Your task to perform on an android device: turn pop-ups off in chrome Image 0: 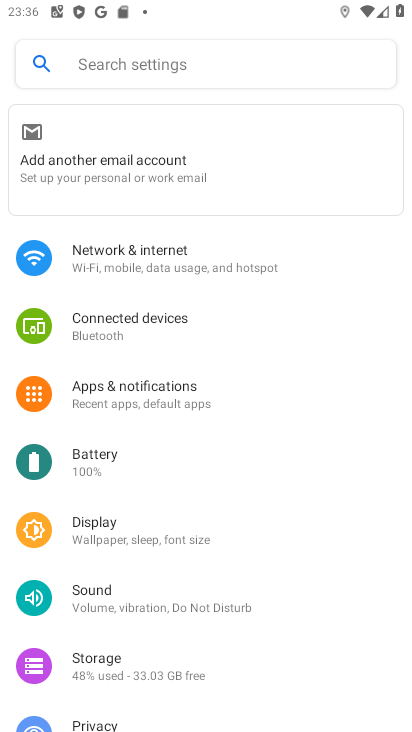
Step 0: press home button
Your task to perform on an android device: turn pop-ups off in chrome Image 1: 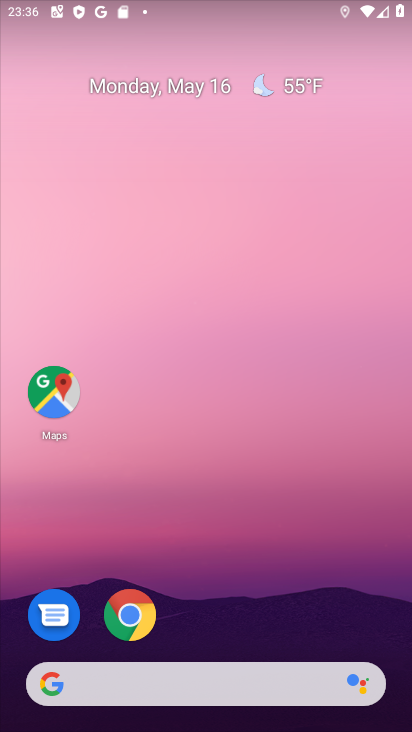
Step 1: click (150, 603)
Your task to perform on an android device: turn pop-ups off in chrome Image 2: 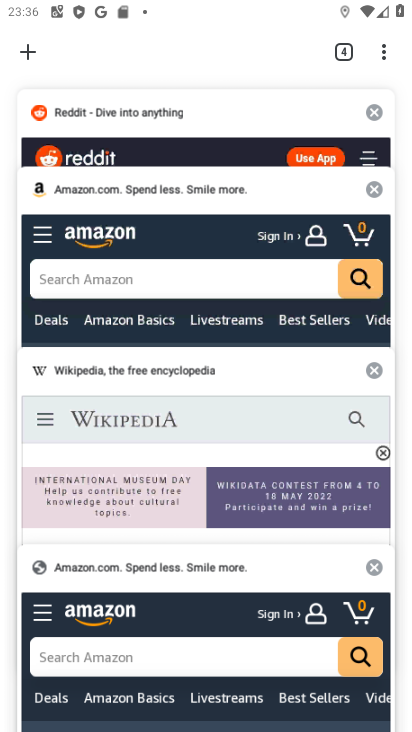
Step 2: click (377, 622)
Your task to perform on an android device: turn pop-ups off in chrome Image 3: 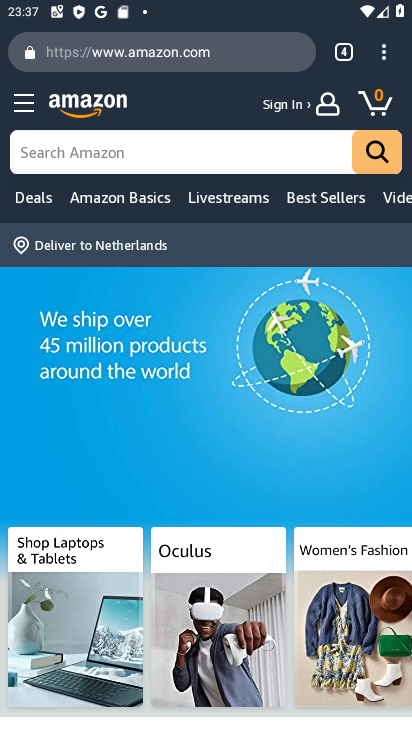
Step 3: click (388, 58)
Your task to perform on an android device: turn pop-ups off in chrome Image 4: 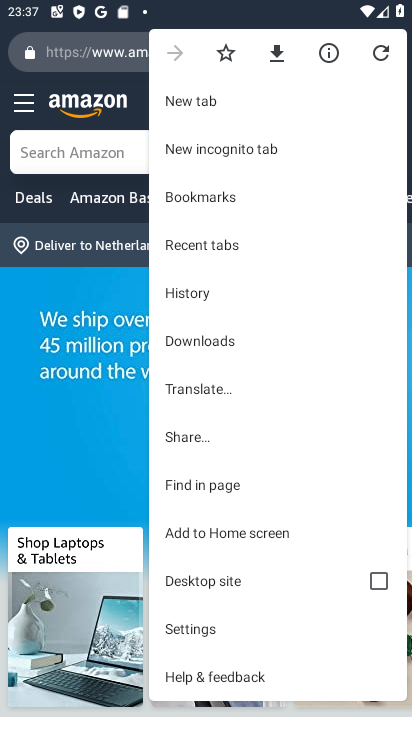
Step 4: click (203, 623)
Your task to perform on an android device: turn pop-ups off in chrome Image 5: 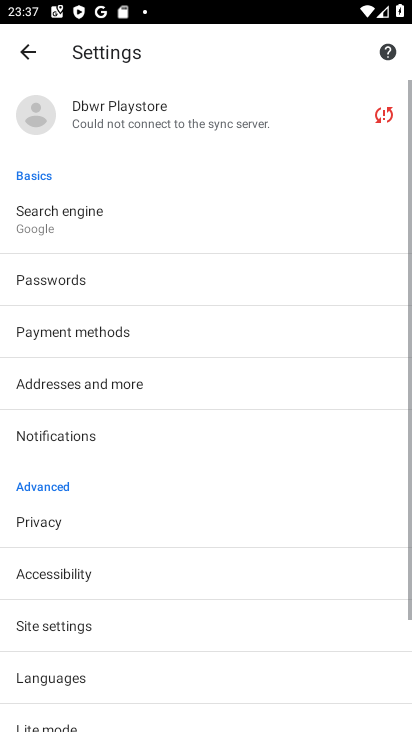
Step 5: drag from (204, 618) to (176, 17)
Your task to perform on an android device: turn pop-ups off in chrome Image 6: 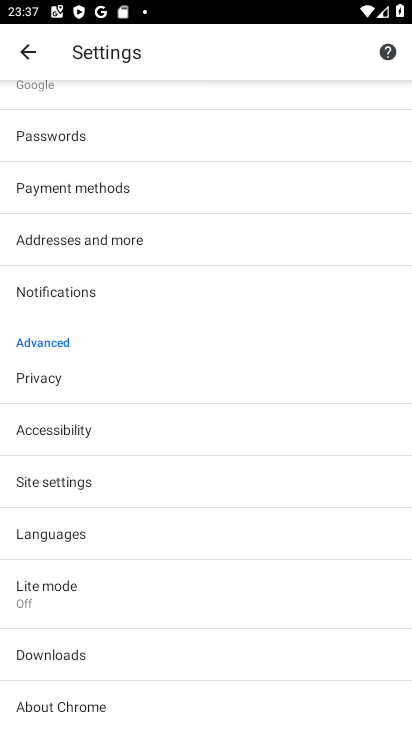
Step 6: click (58, 473)
Your task to perform on an android device: turn pop-ups off in chrome Image 7: 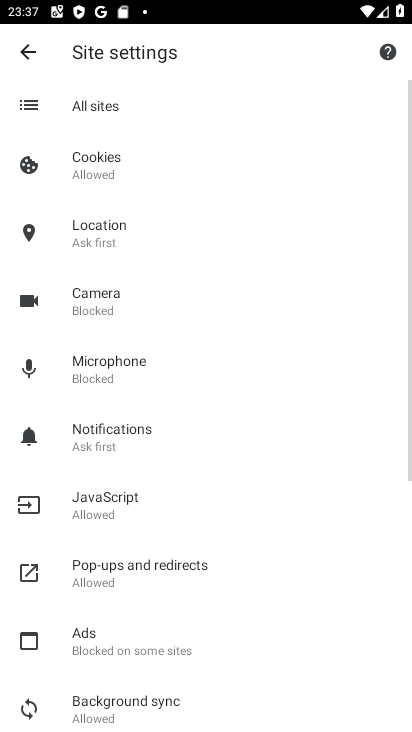
Step 7: click (97, 561)
Your task to perform on an android device: turn pop-ups off in chrome Image 8: 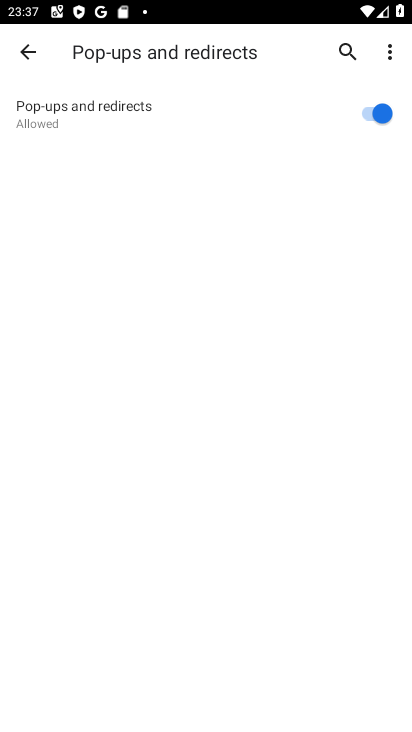
Step 8: click (375, 97)
Your task to perform on an android device: turn pop-ups off in chrome Image 9: 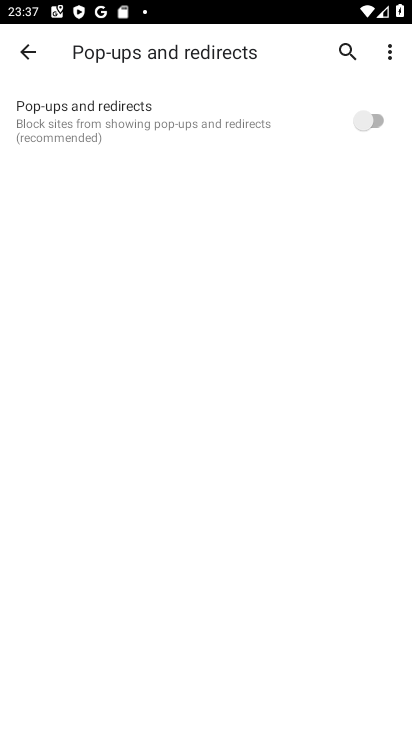
Step 9: task complete